Your task to perform on an android device: What is the news today? Image 0: 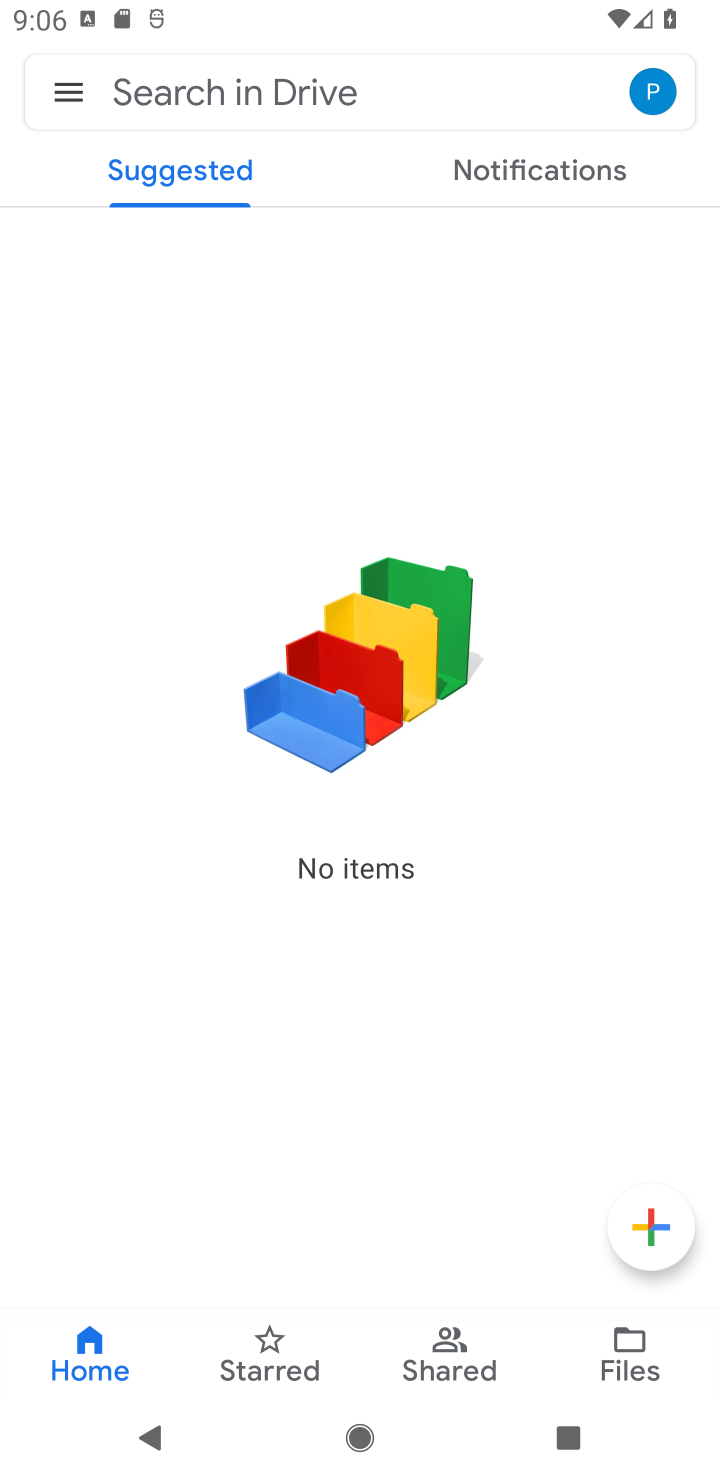
Step 0: press home button
Your task to perform on an android device: What is the news today? Image 1: 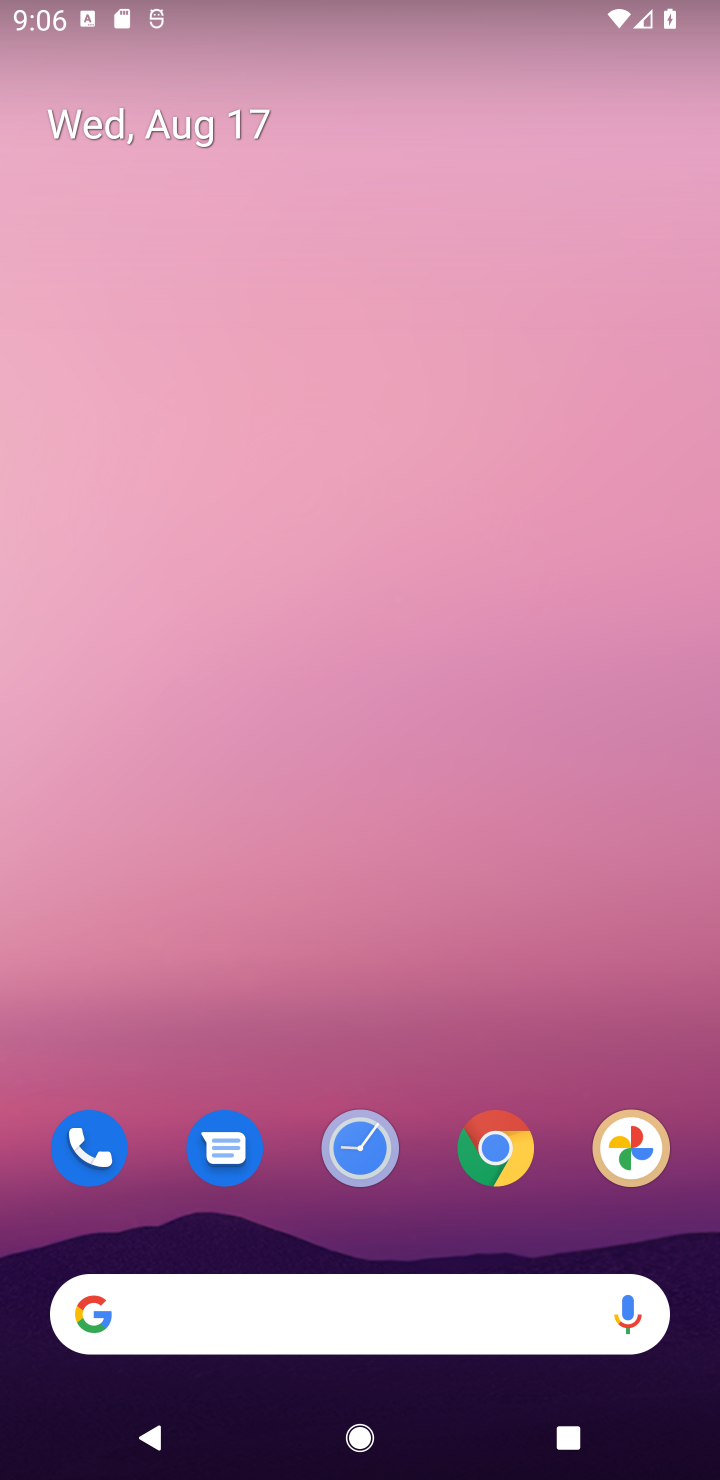
Step 1: task complete